Your task to perform on an android device: turn off location Image 0: 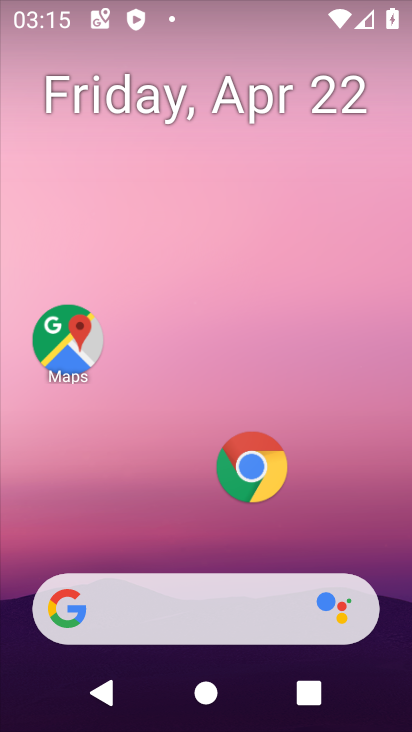
Step 0: drag from (242, 532) to (289, 231)
Your task to perform on an android device: turn off location Image 1: 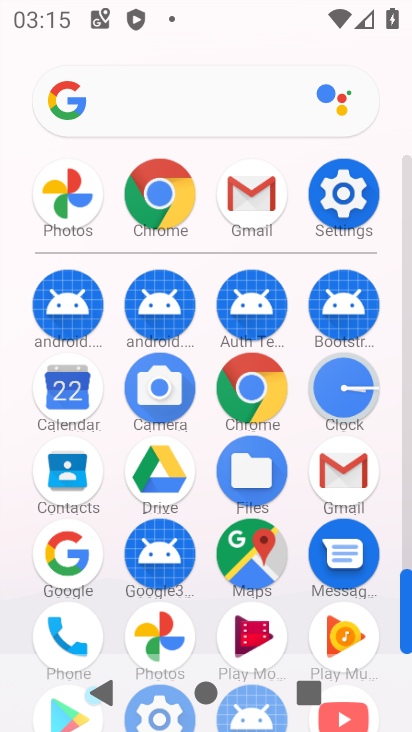
Step 1: click (343, 201)
Your task to perform on an android device: turn off location Image 2: 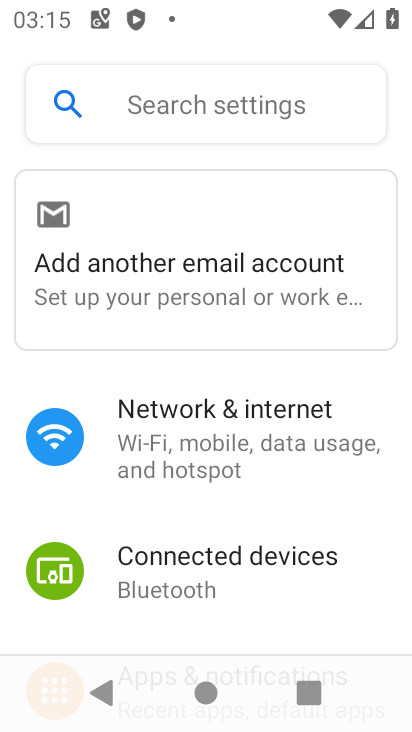
Step 2: drag from (266, 627) to (265, 332)
Your task to perform on an android device: turn off location Image 3: 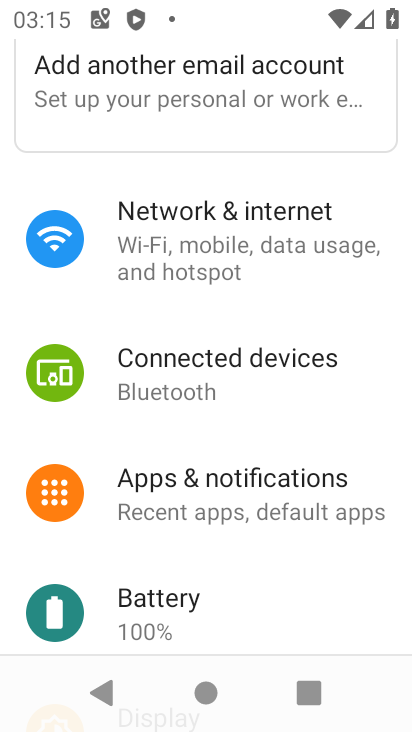
Step 3: drag from (226, 604) to (203, 407)
Your task to perform on an android device: turn off location Image 4: 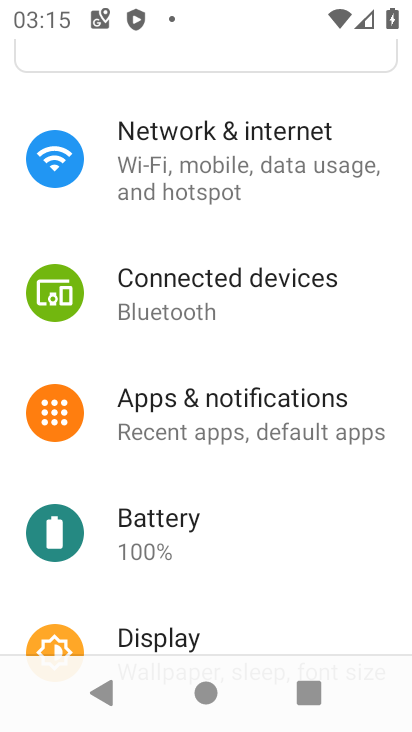
Step 4: drag from (196, 597) to (216, 253)
Your task to perform on an android device: turn off location Image 5: 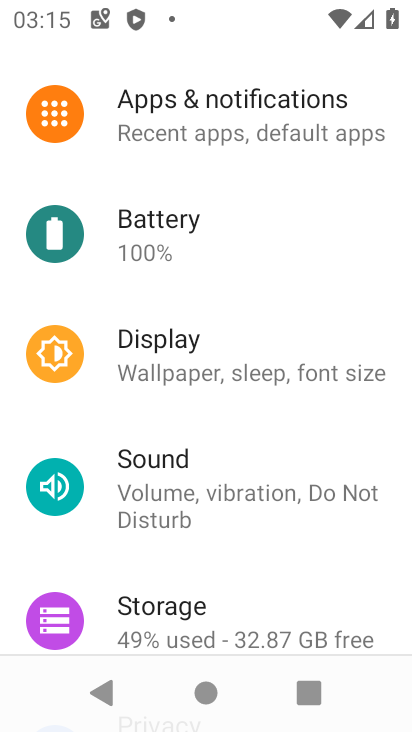
Step 5: drag from (202, 529) to (225, 237)
Your task to perform on an android device: turn off location Image 6: 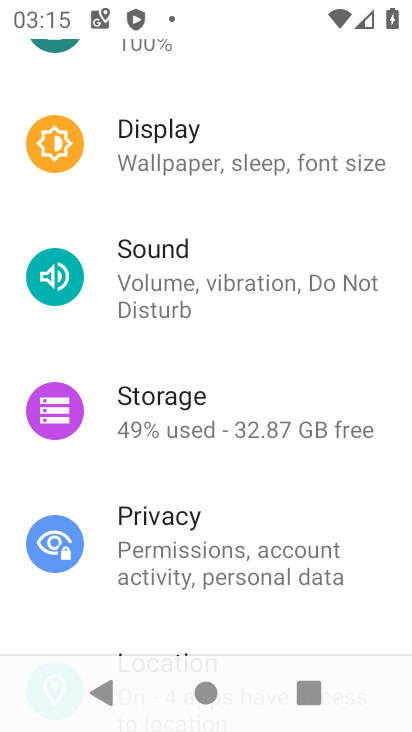
Step 6: drag from (255, 582) to (273, 232)
Your task to perform on an android device: turn off location Image 7: 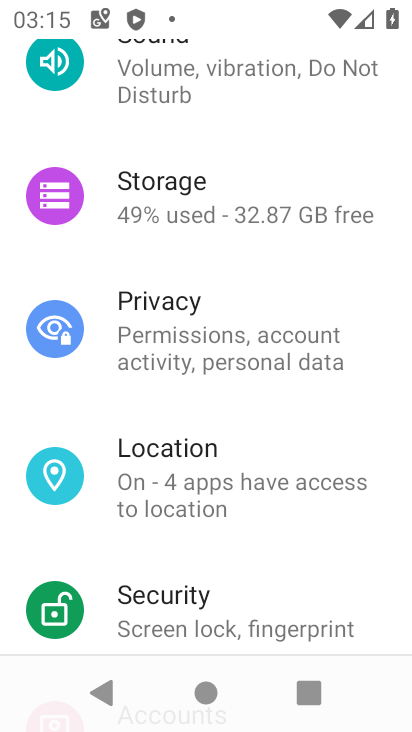
Step 7: click (236, 470)
Your task to perform on an android device: turn off location Image 8: 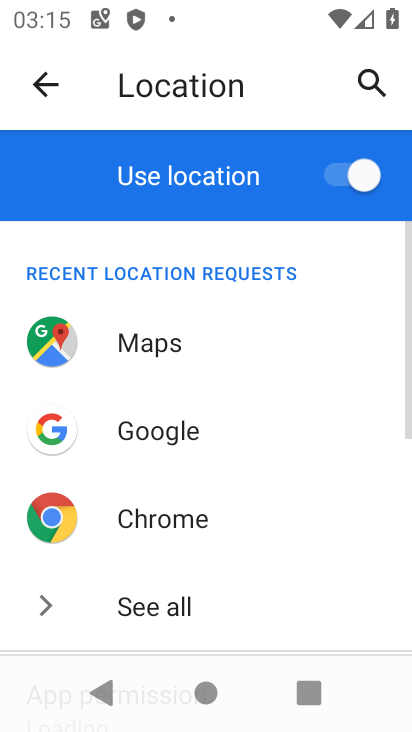
Step 8: click (336, 185)
Your task to perform on an android device: turn off location Image 9: 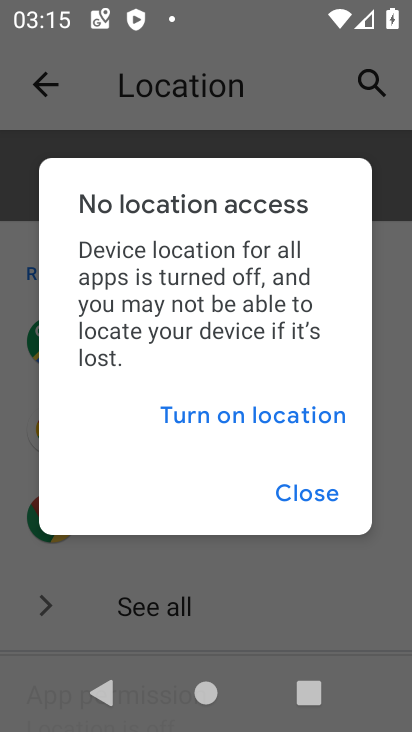
Step 9: task complete